Your task to perform on an android device: turn off location history Image 0: 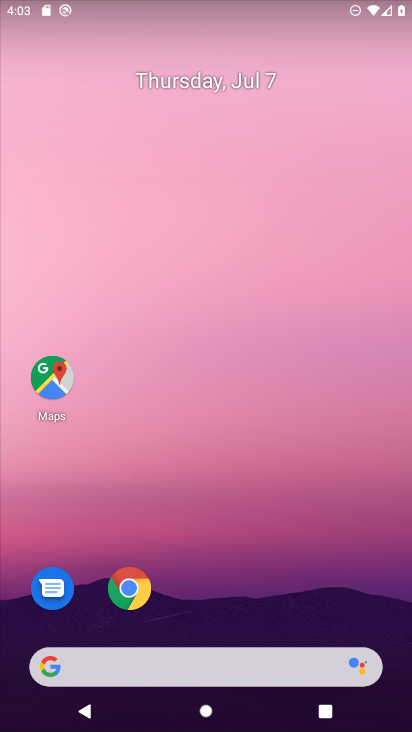
Step 0: click (48, 365)
Your task to perform on an android device: turn off location history Image 1: 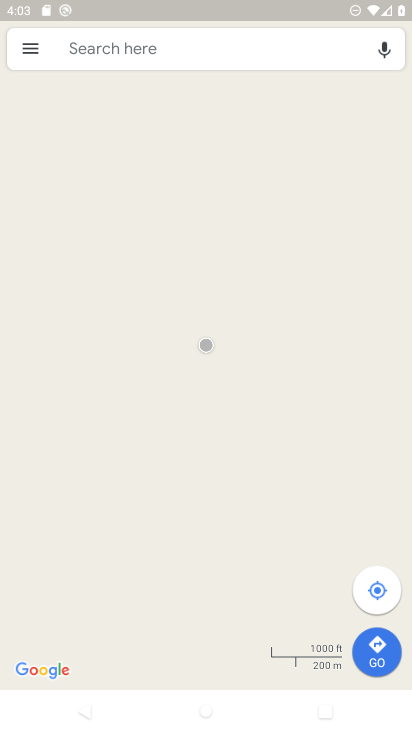
Step 1: click (28, 54)
Your task to perform on an android device: turn off location history Image 2: 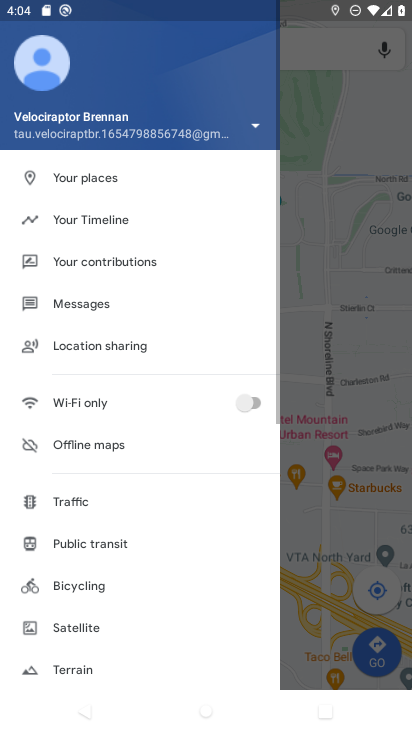
Step 2: click (145, 225)
Your task to perform on an android device: turn off location history Image 3: 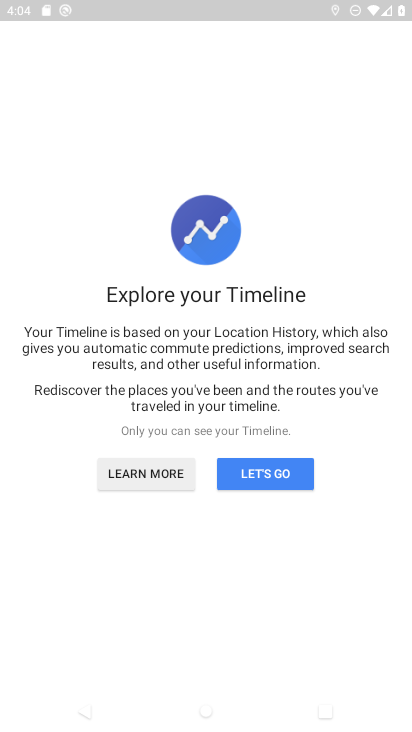
Step 3: click (269, 478)
Your task to perform on an android device: turn off location history Image 4: 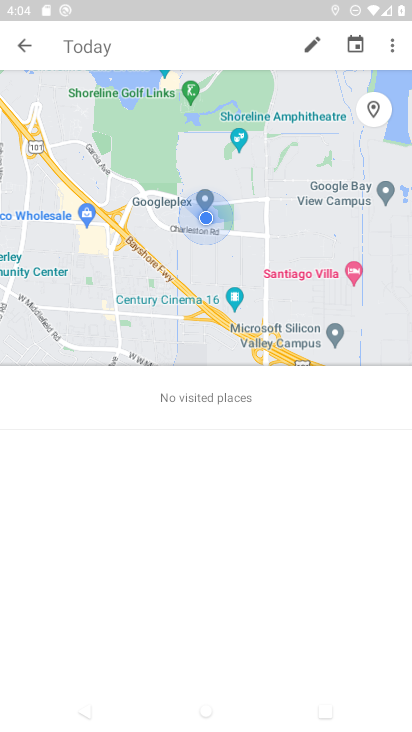
Step 4: click (389, 51)
Your task to perform on an android device: turn off location history Image 5: 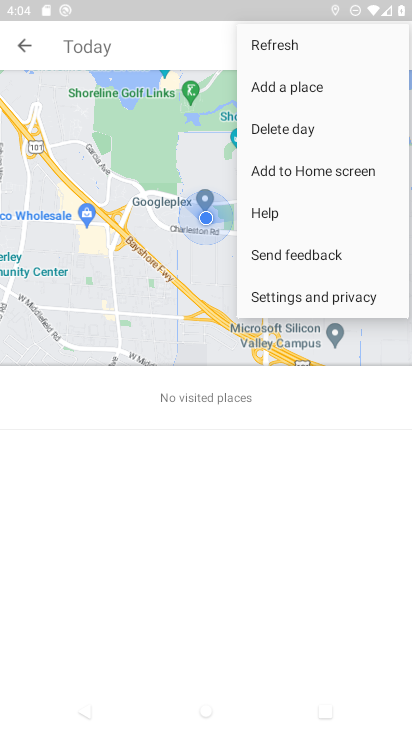
Step 5: click (359, 284)
Your task to perform on an android device: turn off location history Image 6: 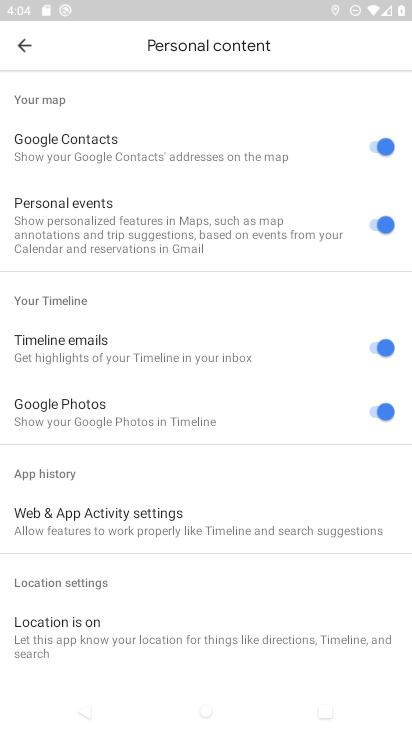
Step 6: drag from (249, 640) to (187, 294)
Your task to perform on an android device: turn off location history Image 7: 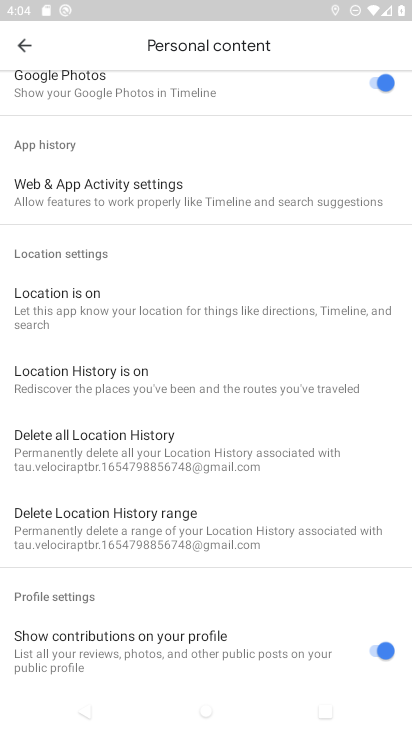
Step 7: click (214, 385)
Your task to perform on an android device: turn off location history Image 8: 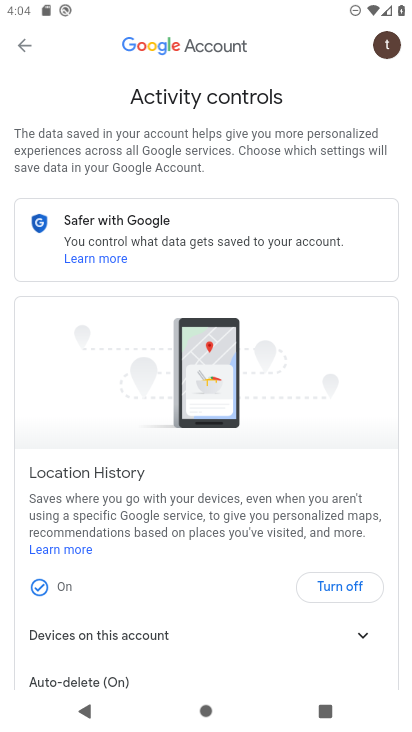
Step 8: click (341, 590)
Your task to perform on an android device: turn off location history Image 9: 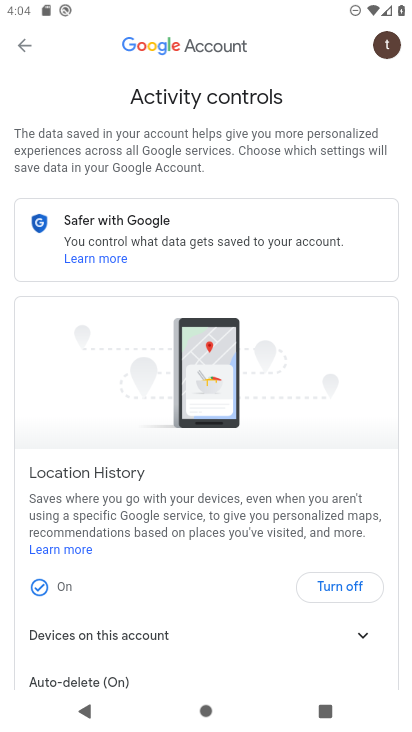
Step 9: click (350, 587)
Your task to perform on an android device: turn off location history Image 10: 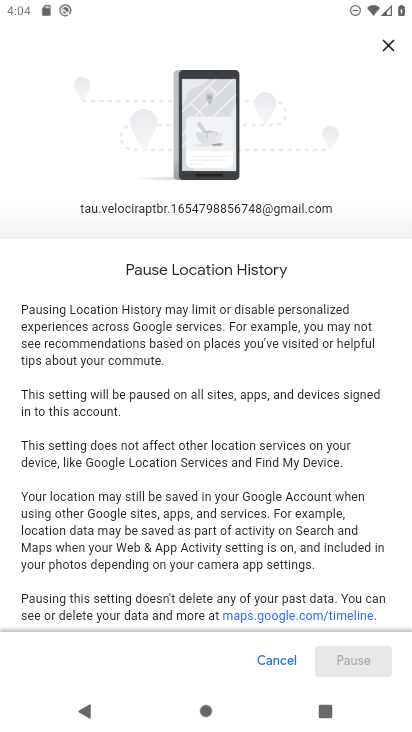
Step 10: drag from (354, 620) to (286, 254)
Your task to perform on an android device: turn off location history Image 11: 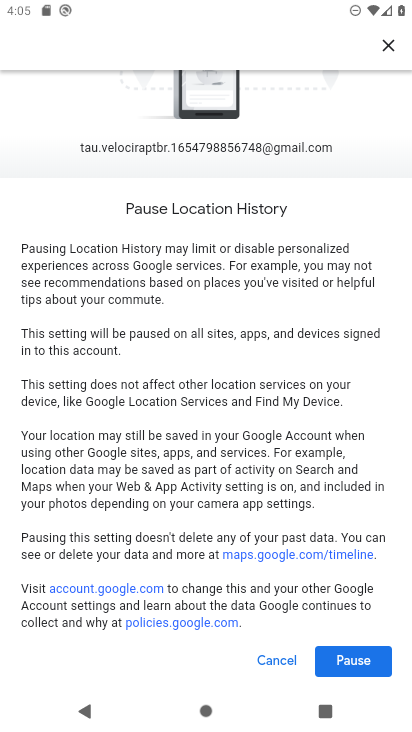
Step 11: click (358, 663)
Your task to perform on an android device: turn off location history Image 12: 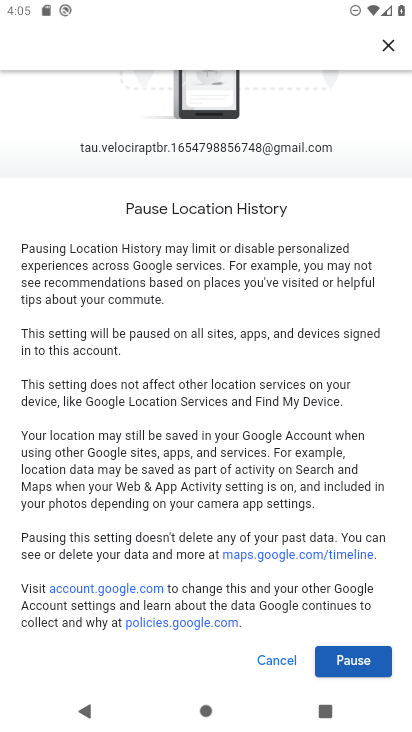
Step 12: click (358, 663)
Your task to perform on an android device: turn off location history Image 13: 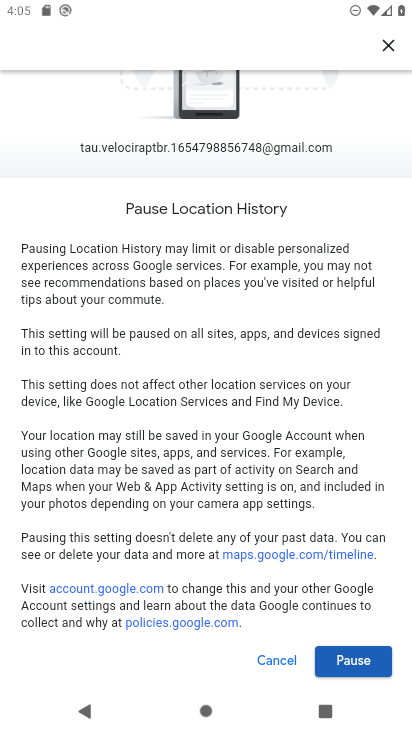
Step 13: click (358, 663)
Your task to perform on an android device: turn off location history Image 14: 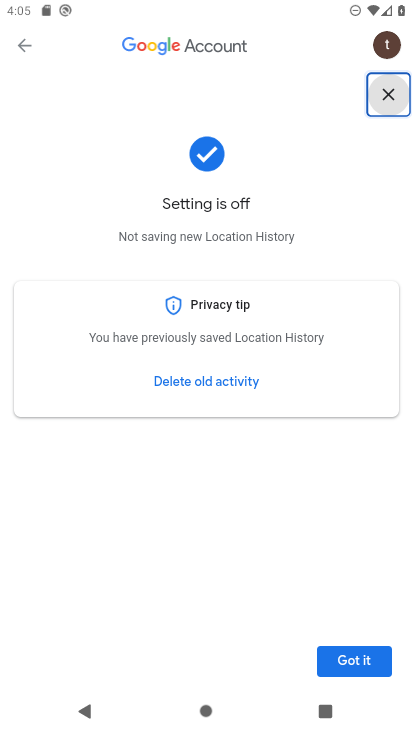
Step 14: click (367, 662)
Your task to perform on an android device: turn off location history Image 15: 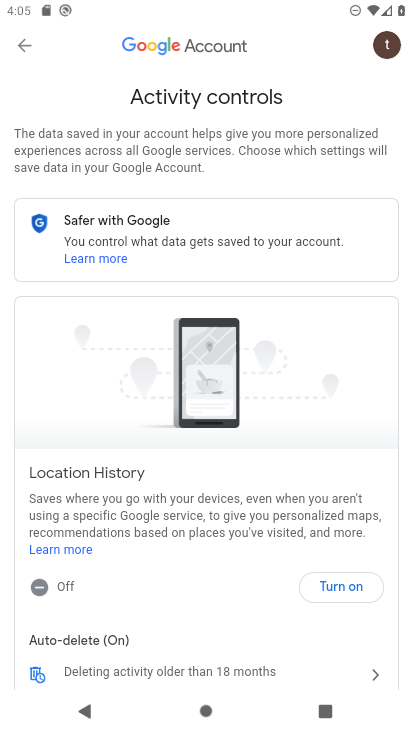
Step 15: task complete